Your task to perform on an android device: View the shopping cart on newegg.com. Search for "acer nitro" on newegg.com, select the first entry, add it to the cart, then select checkout. Image 0: 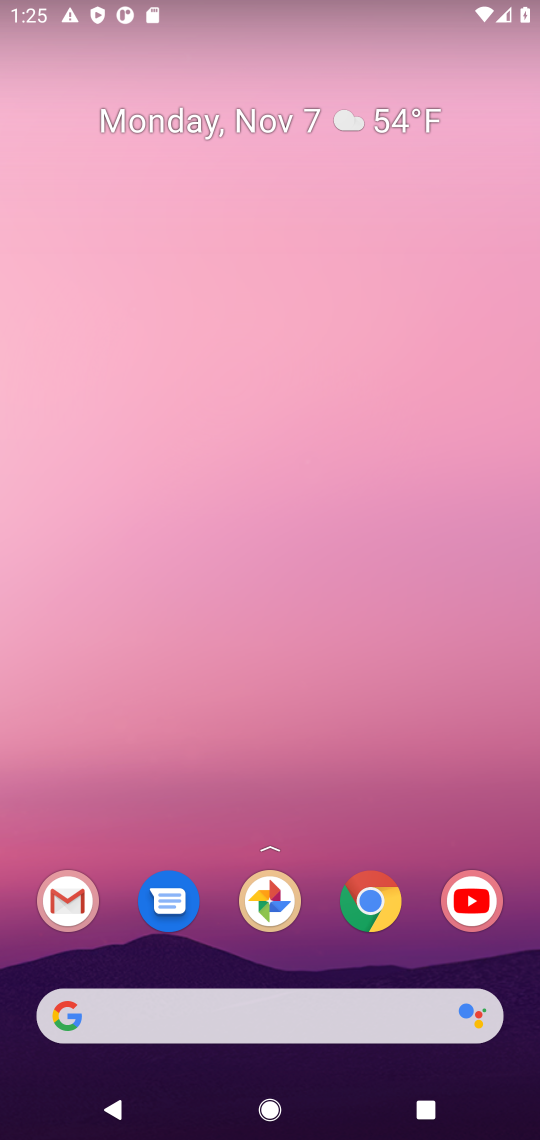
Step 0: click (374, 911)
Your task to perform on an android device: View the shopping cart on newegg.com. Search for "acer nitro" on newegg.com, select the first entry, add it to the cart, then select checkout. Image 1: 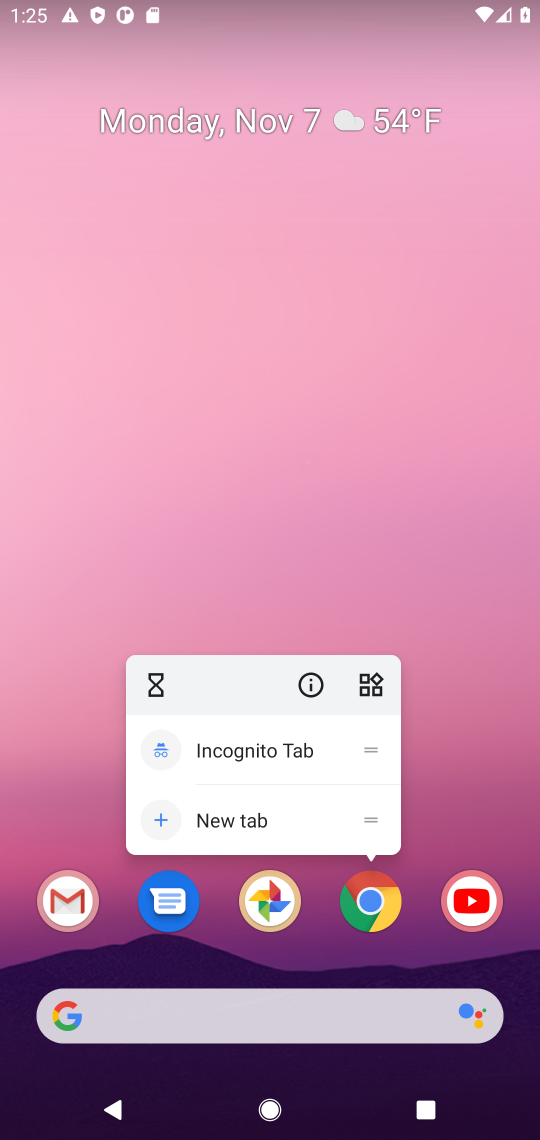
Step 1: click (378, 903)
Your task to perform on an android device: View the shopping cart on newegg.com. Search for "acer nitro" on newegg.com, select the first entry, add it to the cart, then select checkout. Image 2: 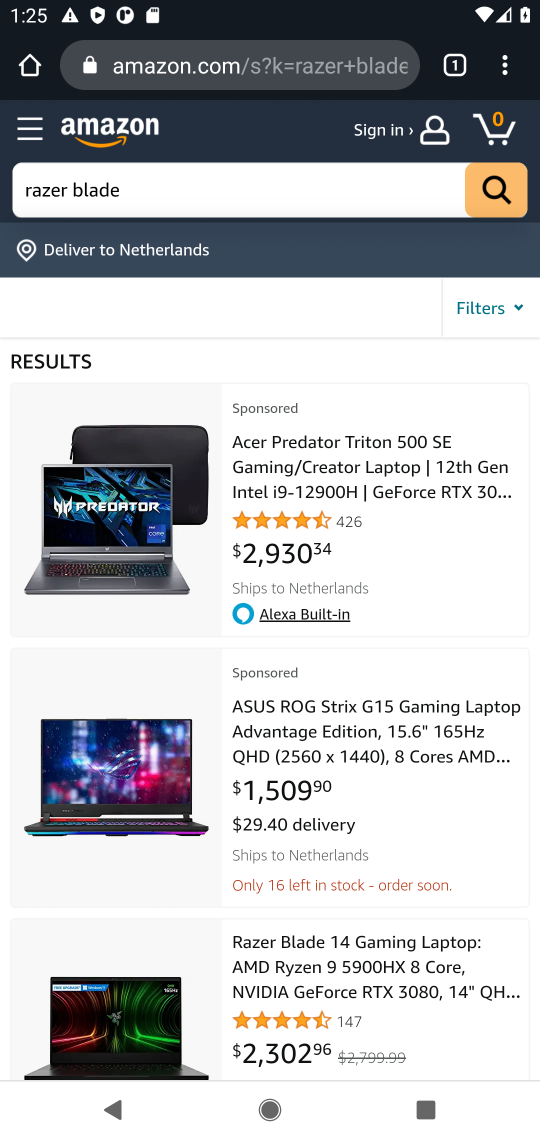
Step 2: click (378, 903)
Your task to perform on an android device: View the shopping cart on newegg.com. Search for "acer nitro" on newegg.com, select the first entry, add it to the cart, then select checkout. Image 3: 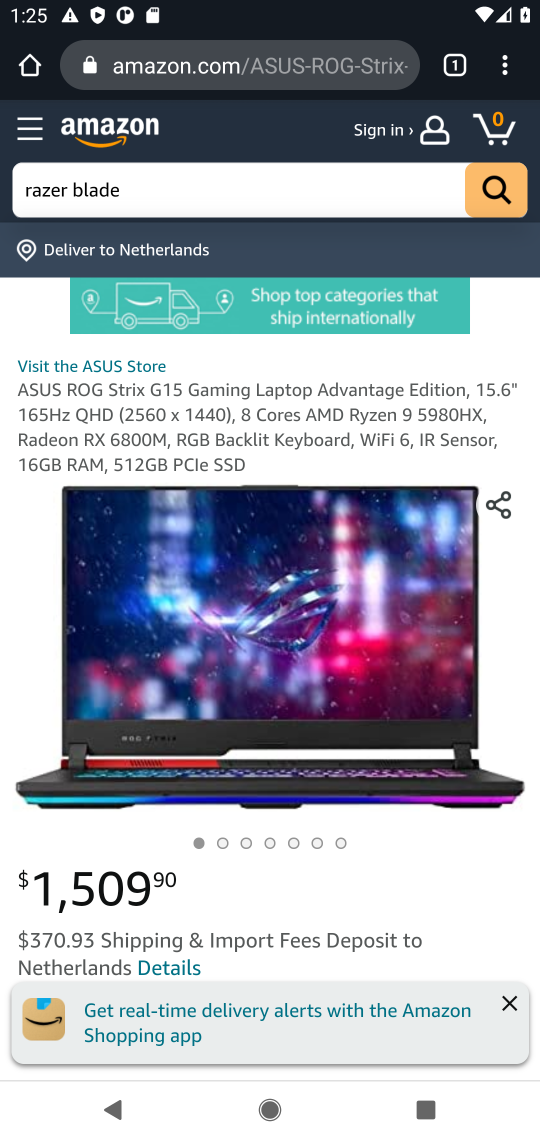
Step 3: click (220, 78)
Your task to perform on an android device: View the shopping cart on newegg.com. Search for "acer nitro" on newegg.com, select the first entry, add it to the cart, then select checkout. Image 4: 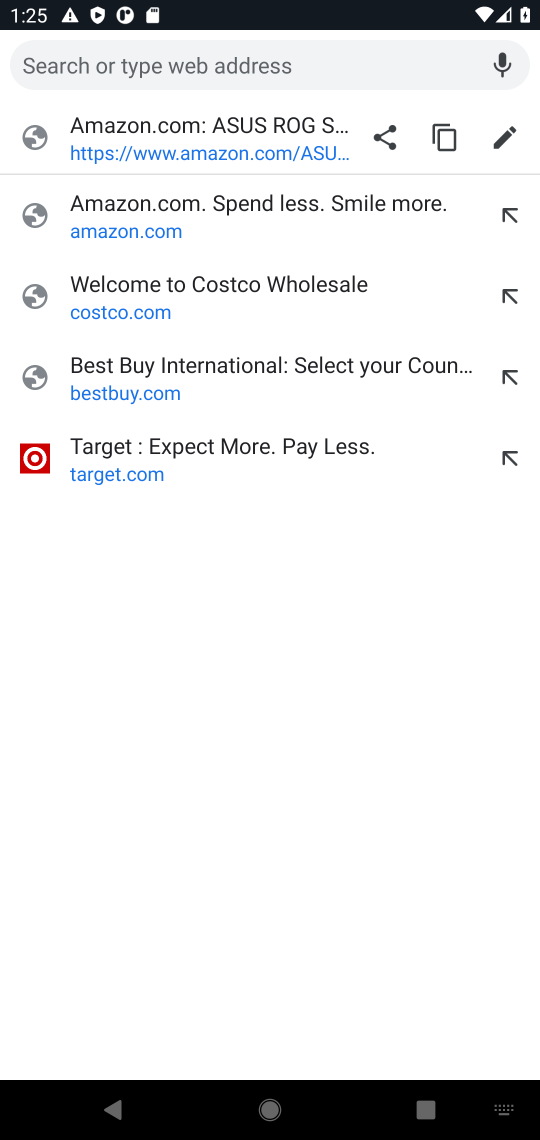
Step 4: type " newegg.com"
Your task to perform on an android device: View the shopping cart on newegg.com. Search for "acer nitro" on newegg.com, select the first entry, add it to the cart, then select checkout. Image 5: 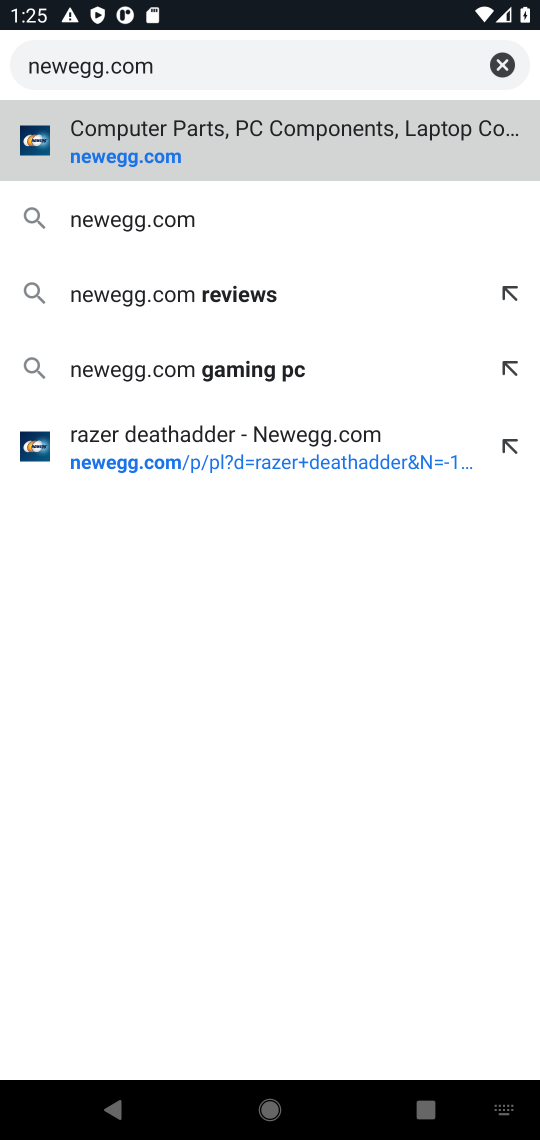
Step 5: click (148, 153)
Your task to perform on an android device: View the shopping cart on newegg.com. Search for "acer nitro" on newegg.com, select the first entry, add it to the cart, then select checkout. Image 6: 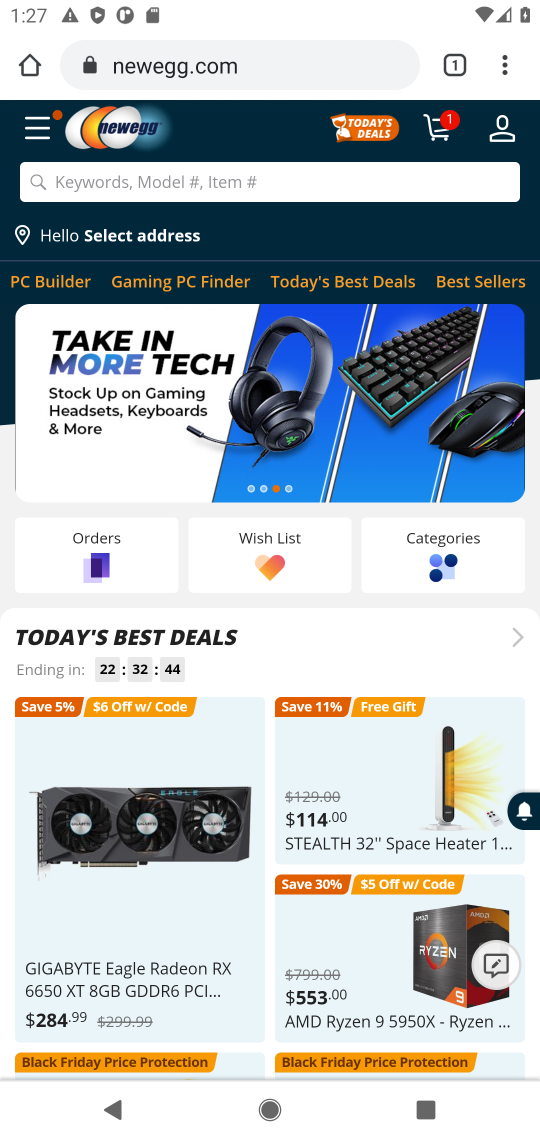
Step 6: click (456, 124)
Your task to perform on an android device: View the shopping cart on newegg.com. Search for "acer nitro" on newegg.com, select the first entry, add it to the cart, then select checkout. Image 7: 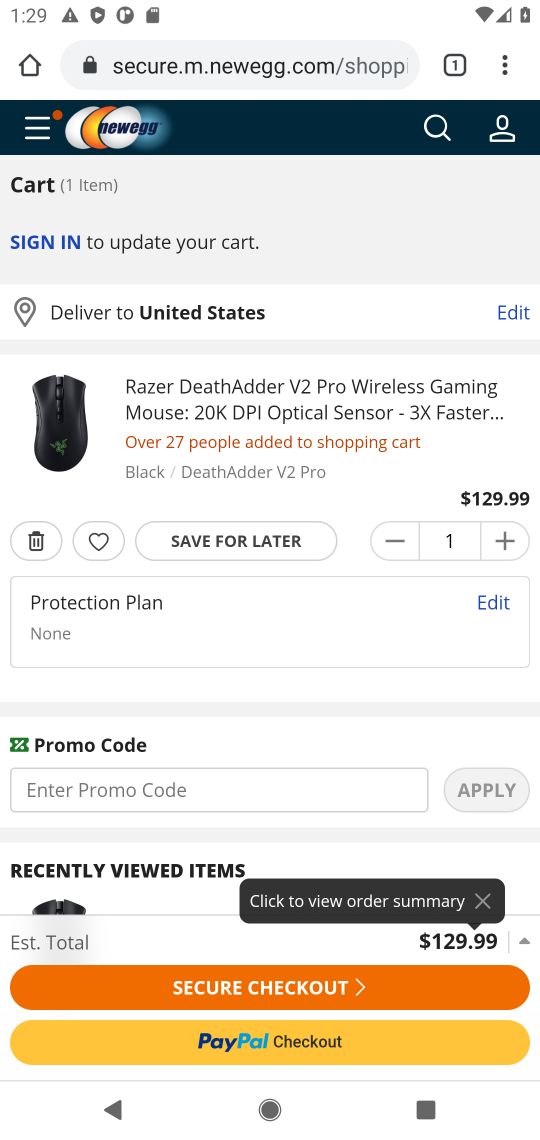
Step 7: click (432, 130)
Your task to perform on an android device: View the shopping cart on newegg.com. Search for "acer nitro" on newegg.com, select the first entry, add it to the cart, then select checkout. Image 8: 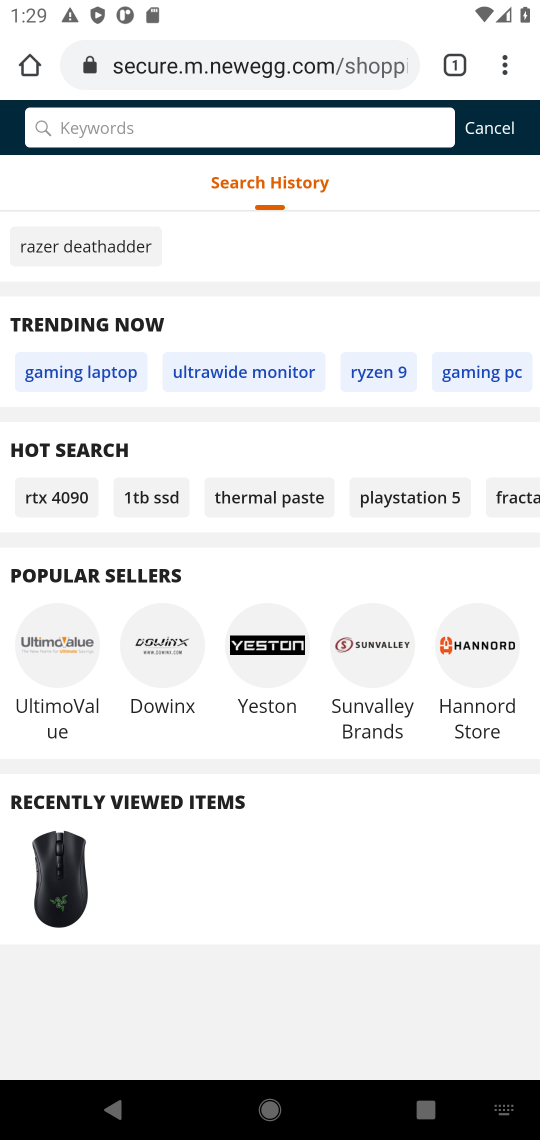
Step 8: type "acer nitro"
Your task to perform on an android device: View the shopping cart on newegg.com. Search for "acer nitro" on newegg.com, select the first entry, add it to the cart, then select checkout. Image 9: 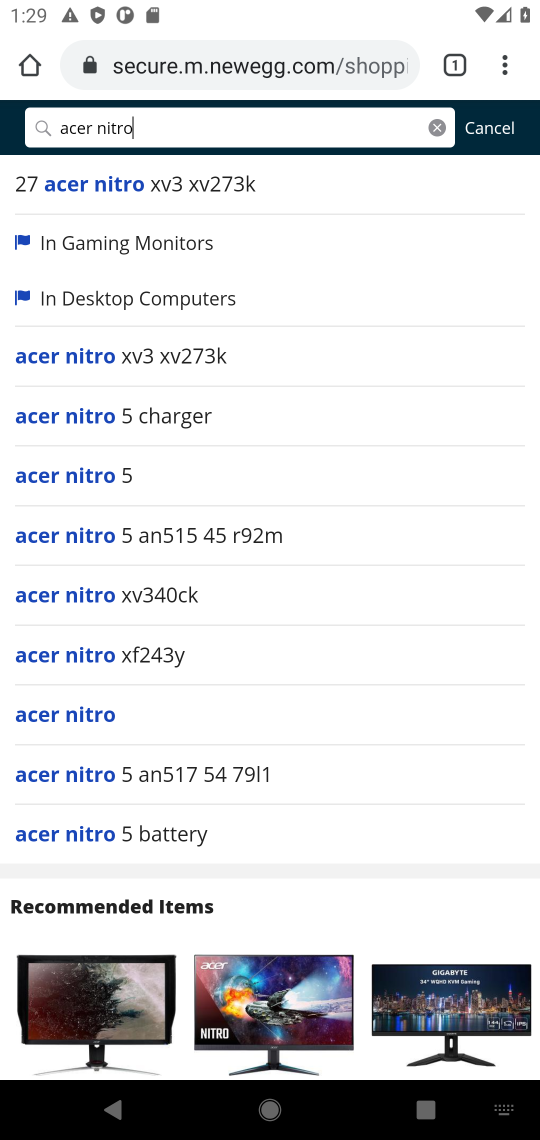
Step 9: click (94, 710)
Your task to perform on an android device: View the shopping cart on newegg.com. Search for "acer nitro" on newegg.com, select the first entry, add it to the cart, then select checkout. Image 10: 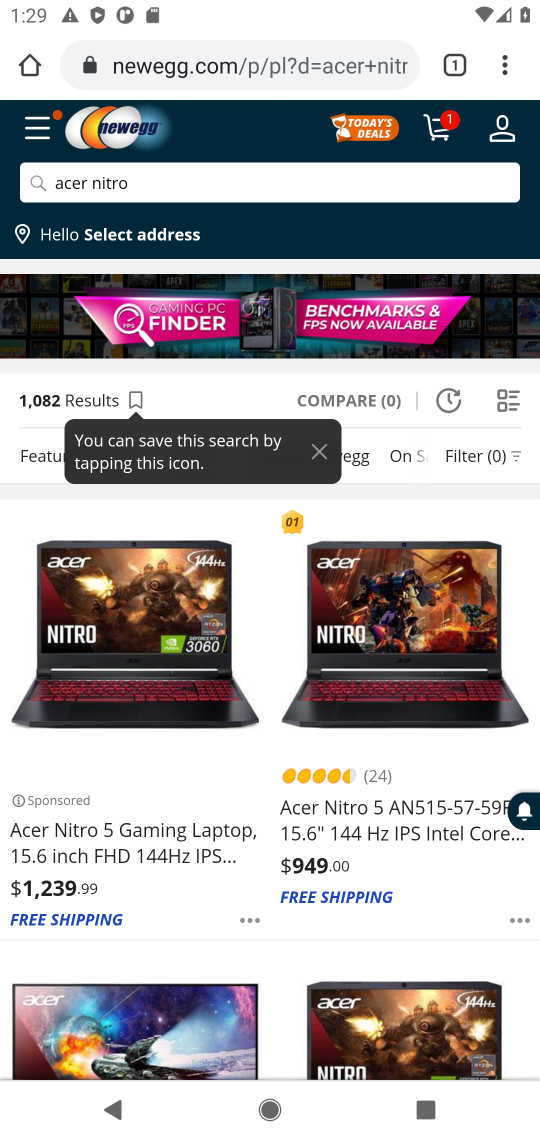
Step 10: click (80, 682)
Your task to perform on an android device: View the shopping cart on newegg.com. Search for "acer nitro" on newegg.com, select the first entry, add it to the cart, then select checkout. Image 11: 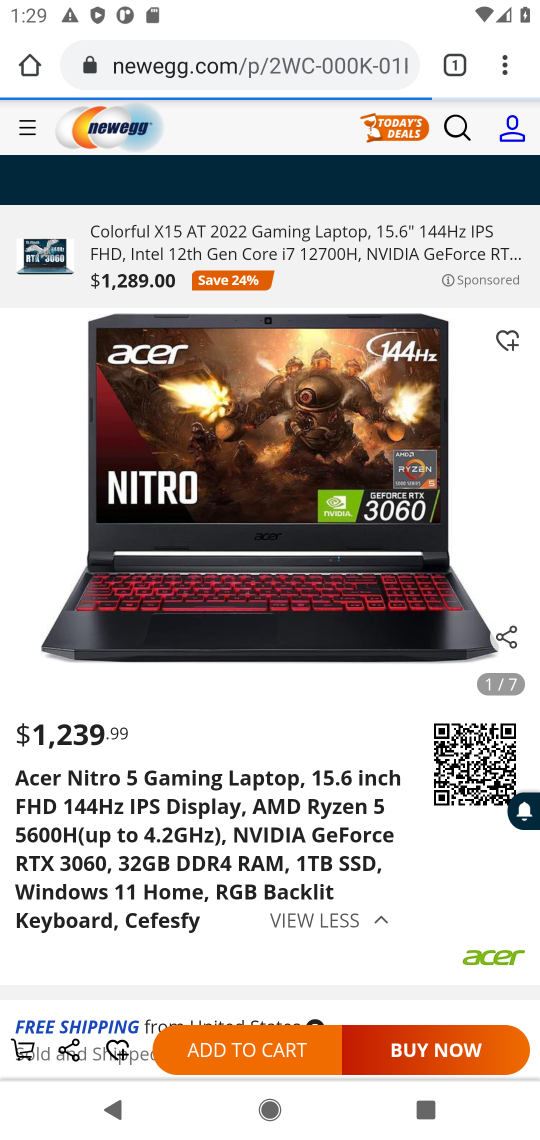
Step 11: click (230, 1041)
Your task to perform on an android device: View the shopping cart on newegg.com. Search for "acer nitro" on newegg.com, select the first entry, add it to the cart, then select checkout. Image 12: 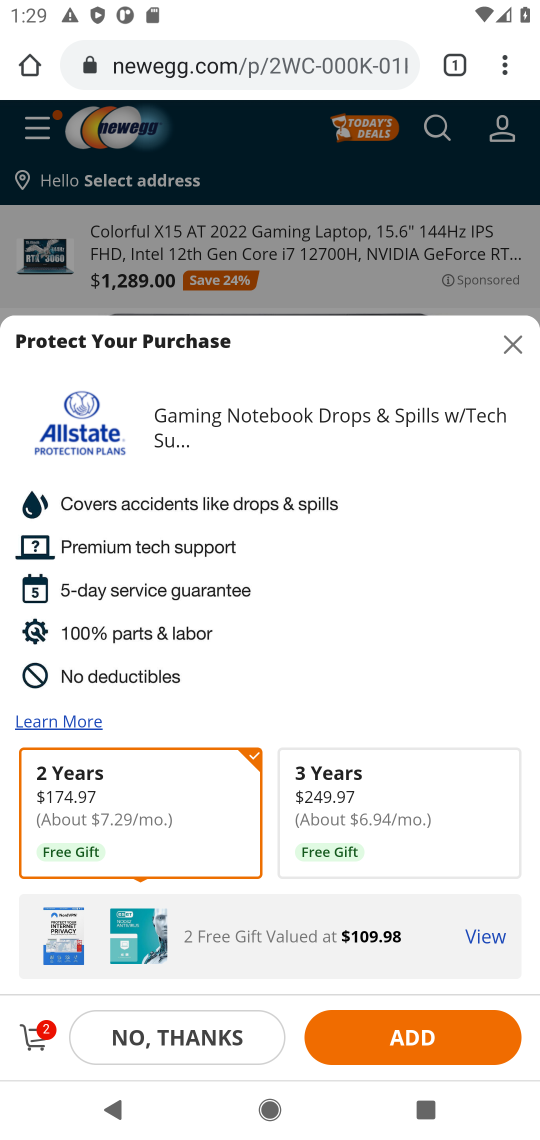
Step 12: click (33, 1044)
Your task to perform on an android device: View the shopping cart on newegg.com. Search for "acer nitro" on newegg.com, select the first entry, add it to the cart, then select checkout. Image 13: 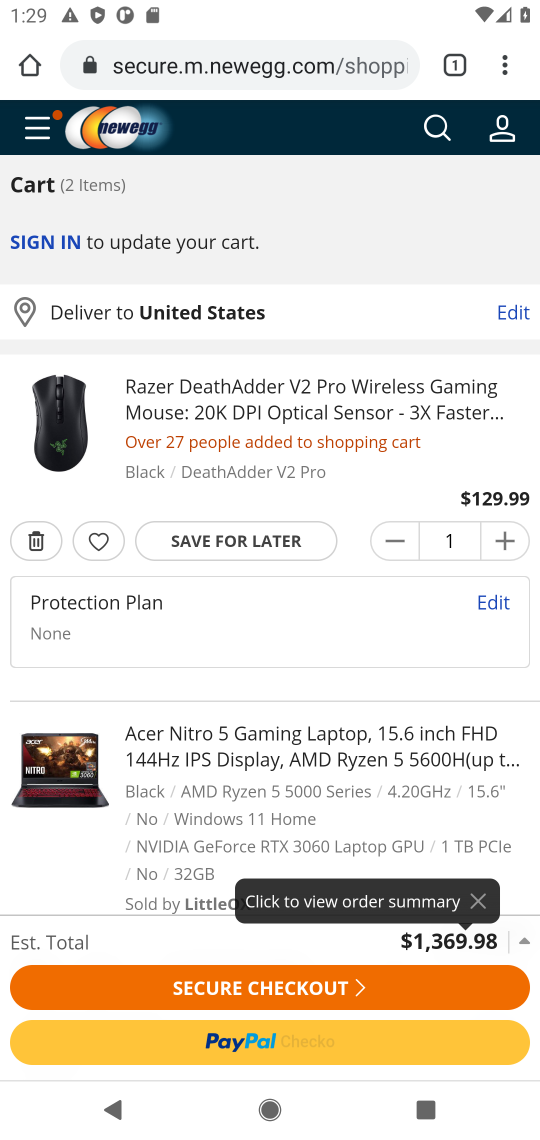
Step 13: click (257, 997)
Your task to perform on an android device: View the shopping cart on newegg.com. Search for "acer nitro" on newegg.com, select the first entry, add it to the cart, then select checkout. Image 14: 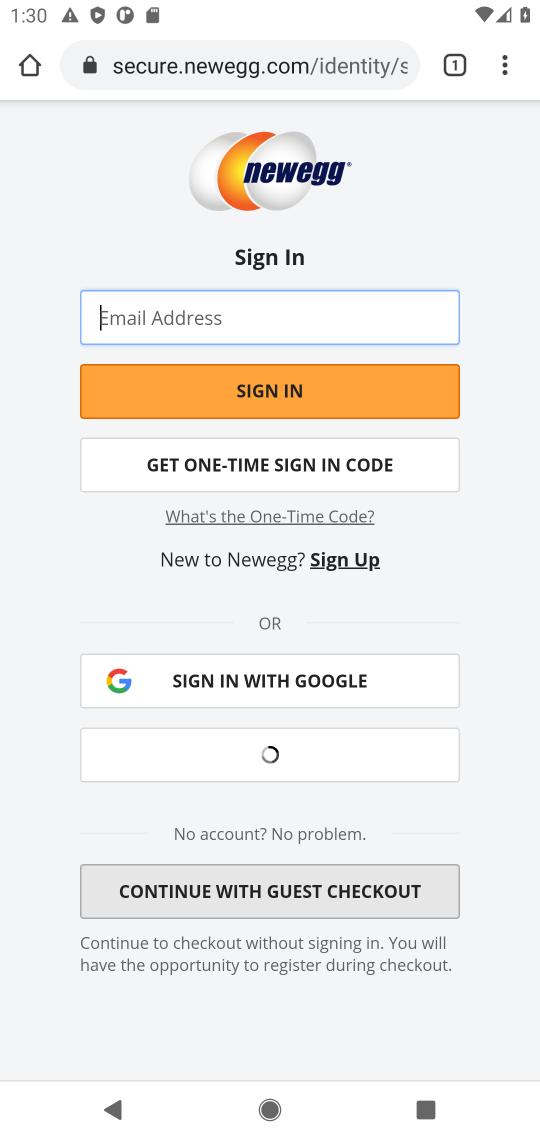
Step 14: task complete